Your task to perform on an android device: open app "Roku - Official Remote Control" (install if not already installed) Image 0: 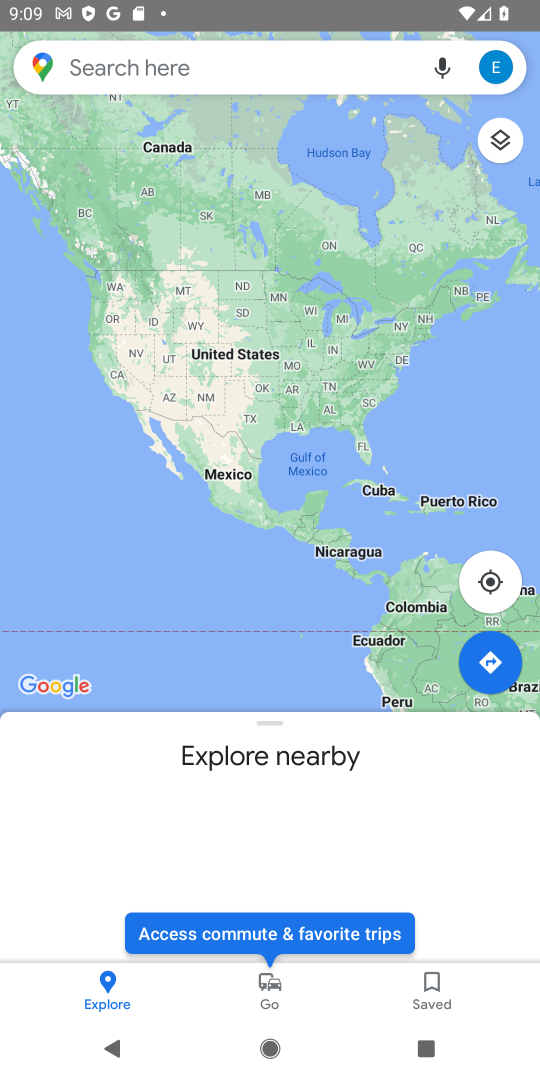
Step 0: press back button
Your task to perform on an android device: open app "Roku - Official Remote Control" (install if not already installed) Image 1: 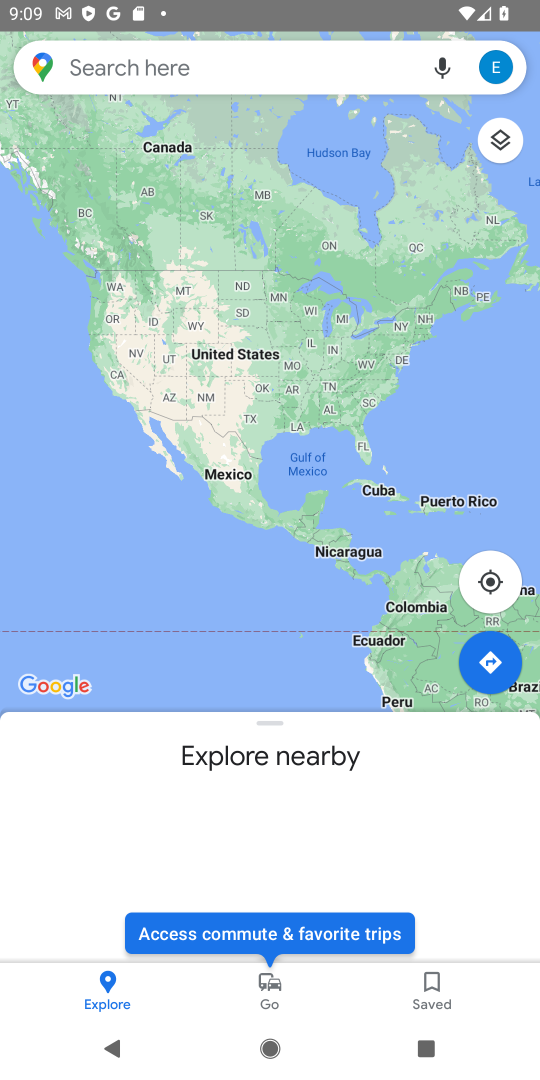
Step 1: press back button
Your task to perform on an android device: open app "Roku - Official Remote Control" (install if not already installed) Image 2: 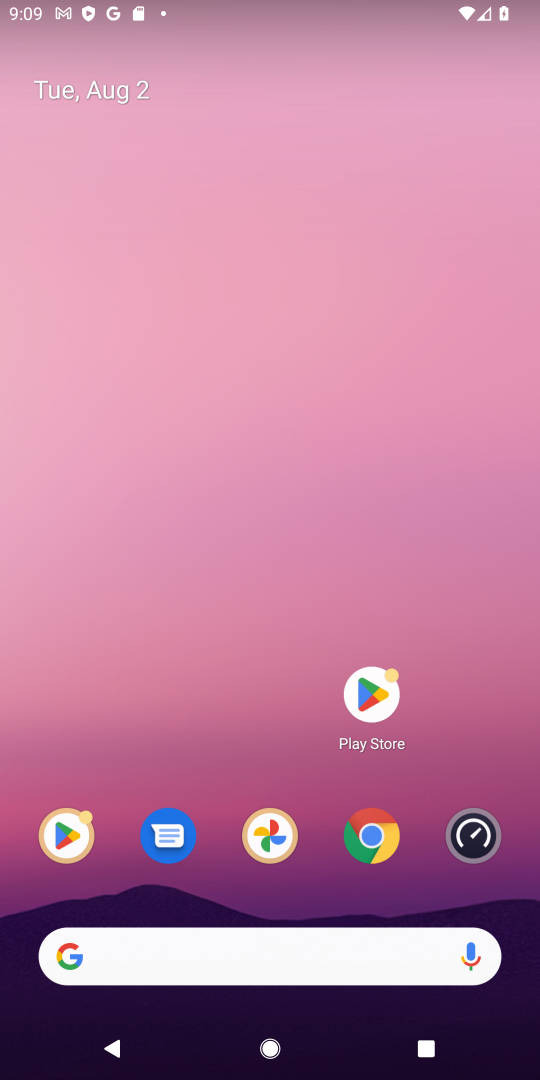
Step 2: press back button
Your task to perform on an android device: open app "Roku - Official Remote Control" (install if not already installed) Image 3: 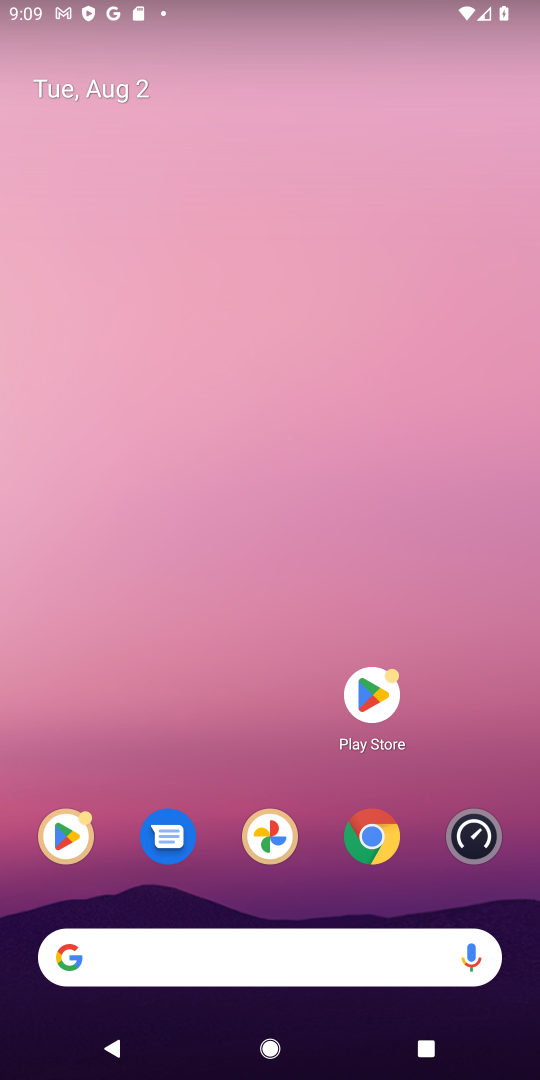
Step 3: drag from (188, 426) to (211, 165)
Your task to perform on an android device: open app "Roku - Official Remote Control" (install if not already installed) Image 4: 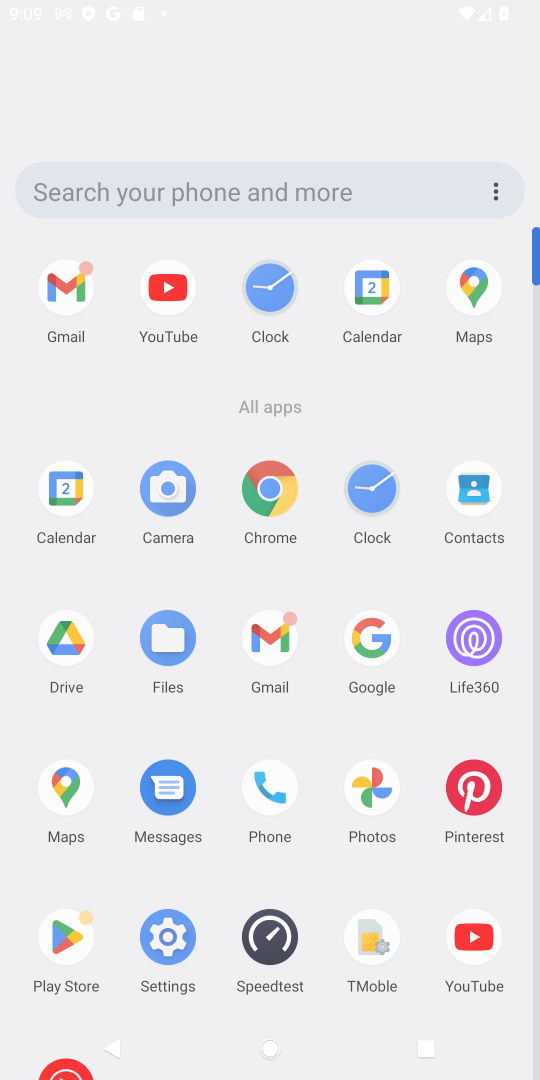
Step 4: drag from (307, 506) to (291, 237)
Your task to perform on an android device: open app "Roku - Official Remote Control" (install if not already installed) Image 5: 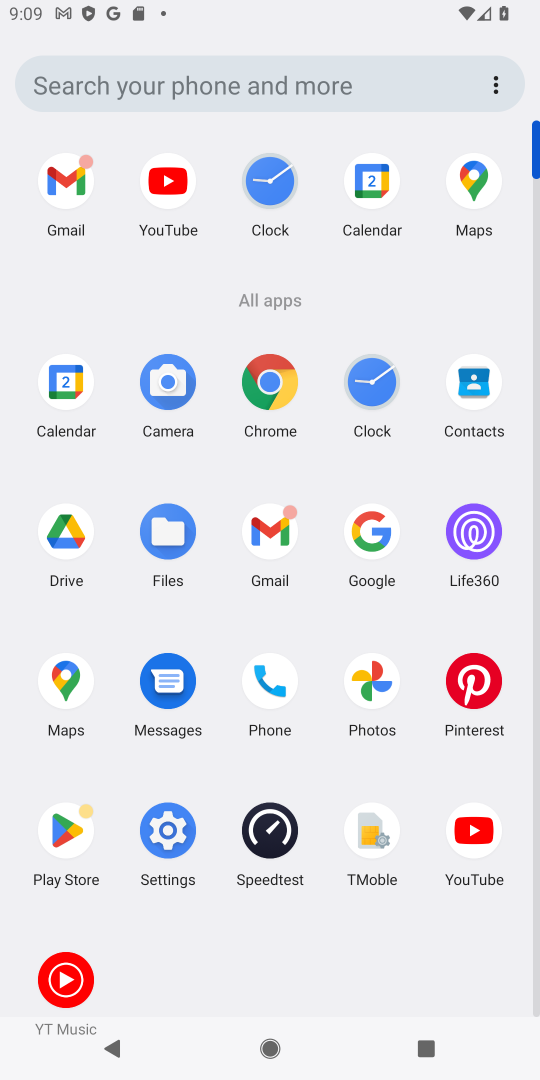
Step 5: click (152, 106)
Your task to perform on an android device: open app "Roku - Official Remote Control" (install if not already installed) Image 6: 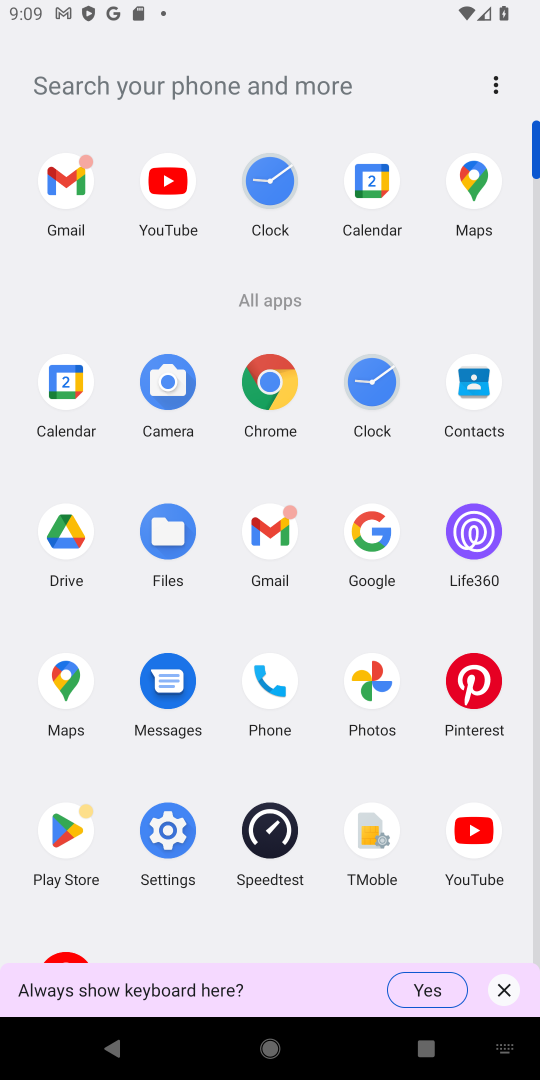
Step 6: click (60, 817)
Your task to perform on an android device: open app "Roku - Official Remote Control" (install if not already installed) Image 7: 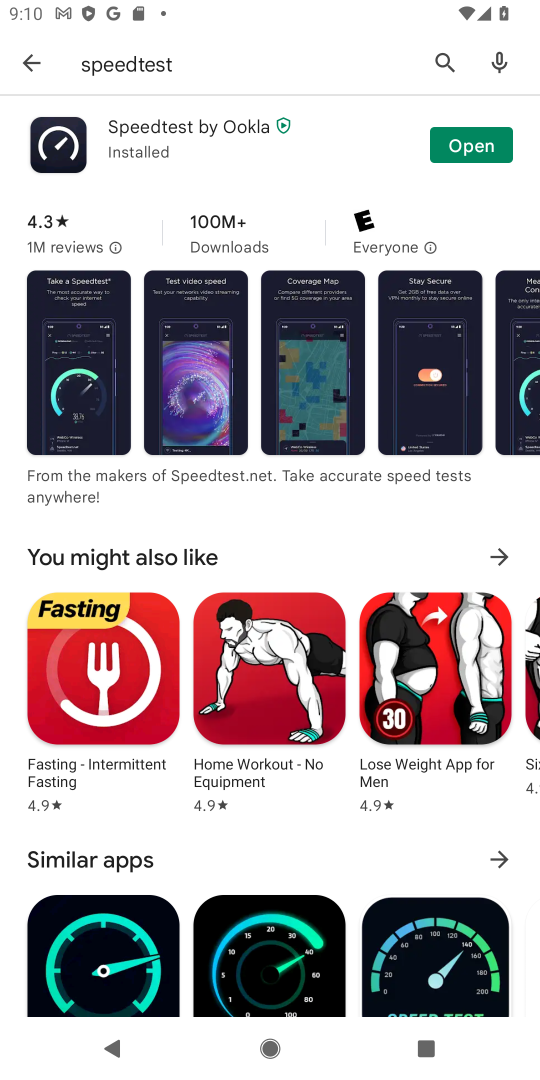
Step 7: click (448, 54)
Your task to perform on an android device: open app "Roku - Official Remote Control" (install if not already installed) Image 8: 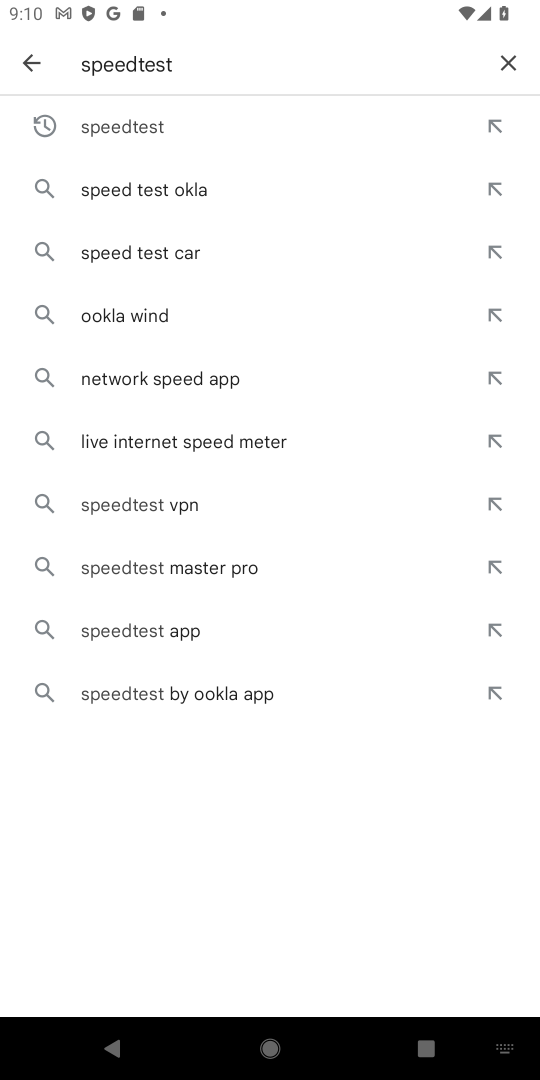
Step 8: click (505, 63)
Your task to perform on an android device: open app "Roku - Official Remote Control" (install if not already installed) Image 9: 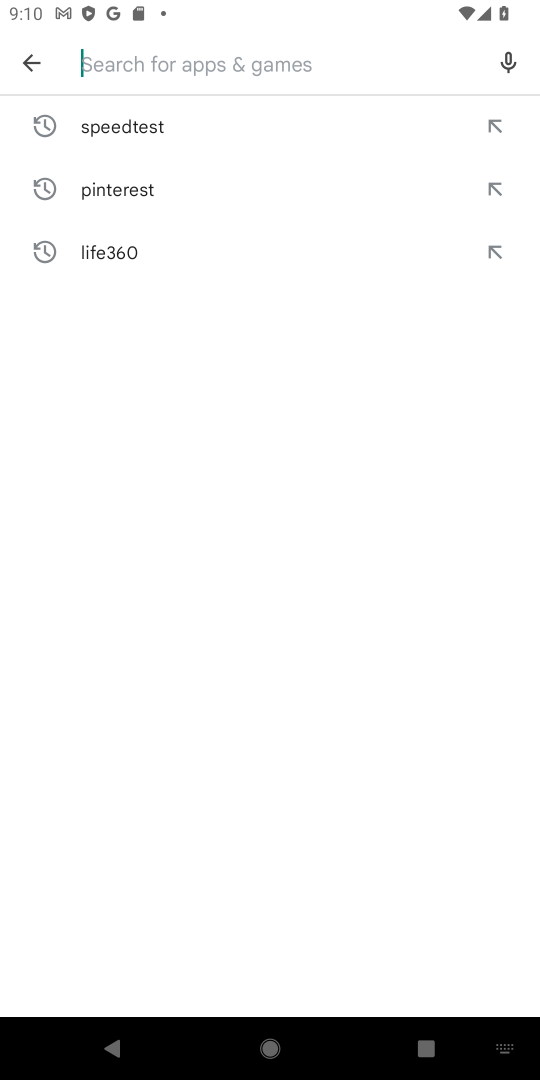
Step 9: type "roku"
Your task to perform on an android device: open app "Roku - Official Remote Control" (install if not already installed) Image 10: 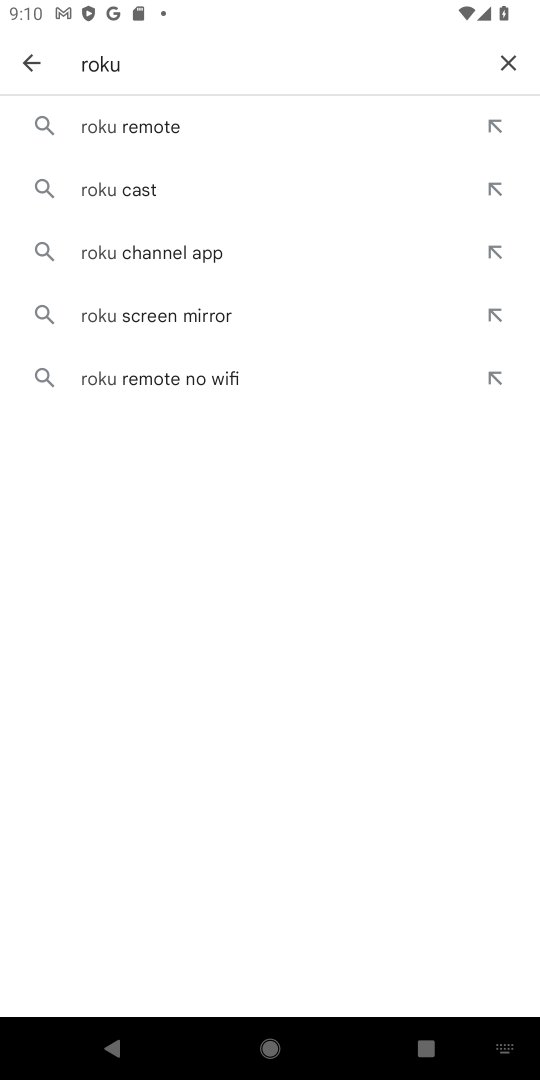
Step 10: click (147, 119)
Your task to perform on an android device: open app "Roku - Official Remote Control" (install if not already installed) Image 11: 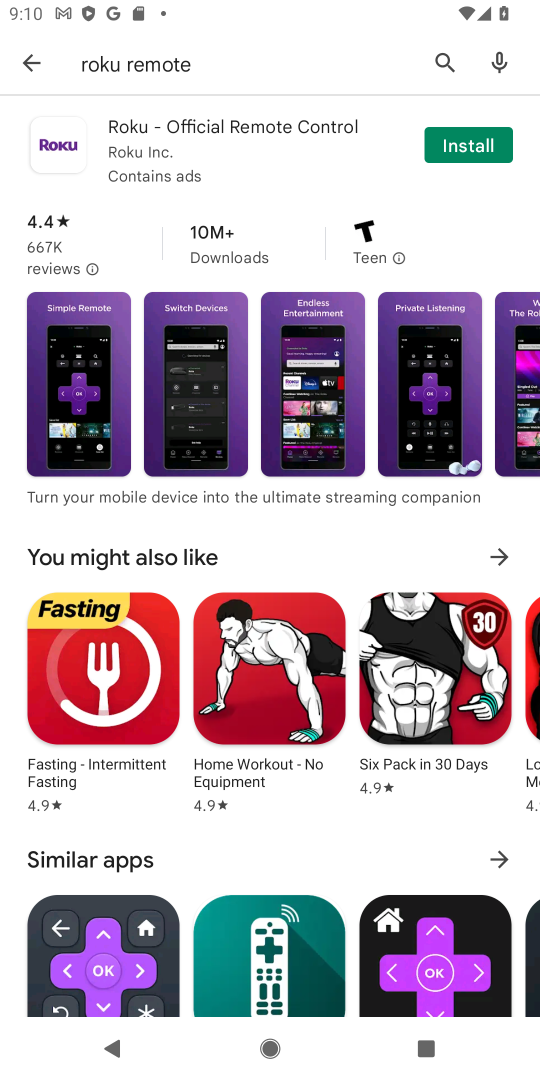
Step 11: click (491, 145)
Your task to perform on an android device: open app "Roku - Official Remote Control" (install if not already installed) Image 12: 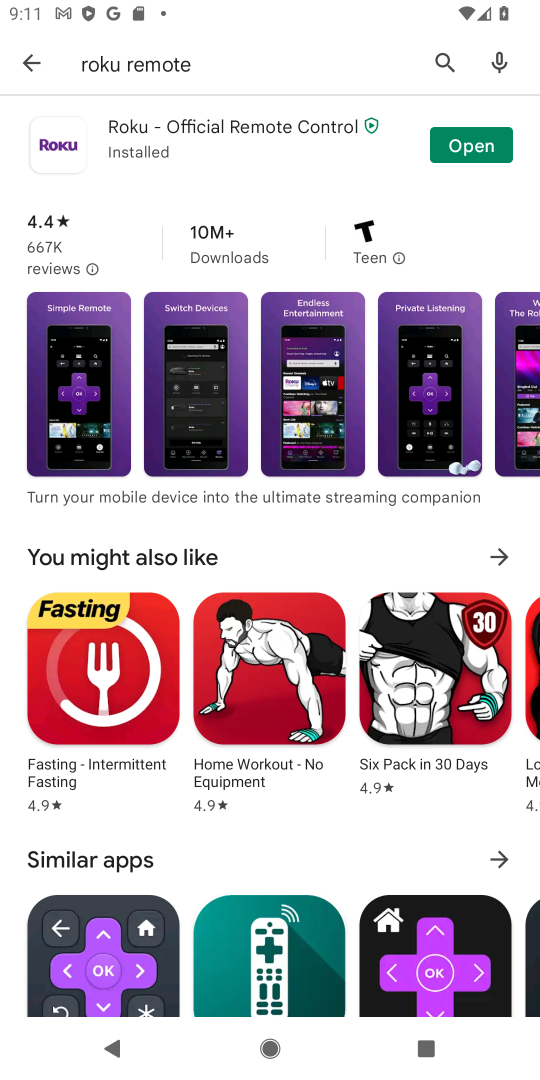
Step 12: click (454, 141)
Your task to perform on an android device: open app "Roku - Official Remote Control" (install if not already installed) Image 13: 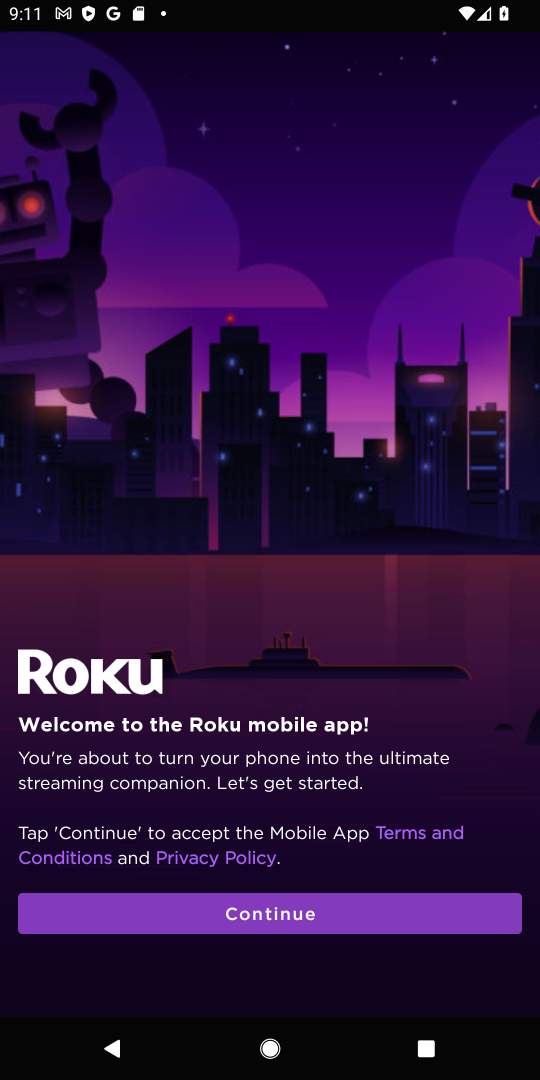
Step 13: task complete